Your task to perform on an android device: What is the news today? Image 0: 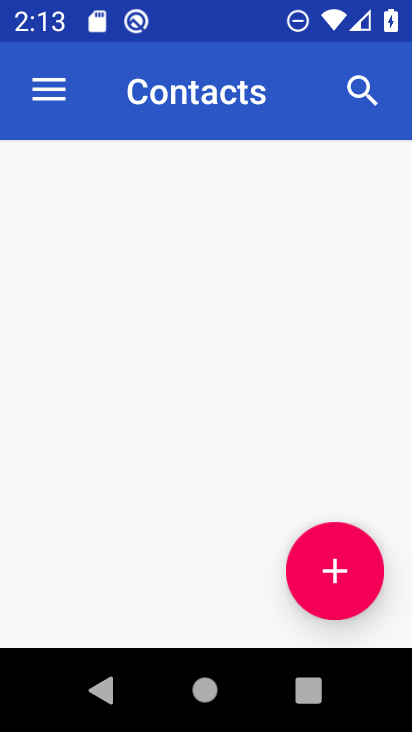
Step 0: drag from (303, 463) to (306, 203)
Your task to perform on an android device: What is the news today? Image 1: 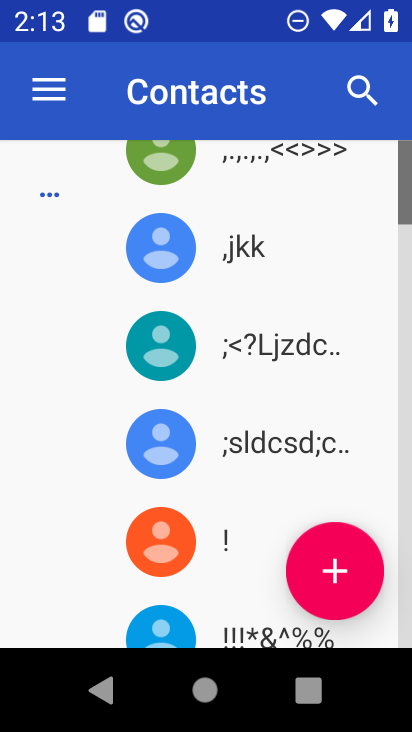
Step 1: task complete